Your task to perform on an android device: Open the calendar and show me this week's events Image 0: 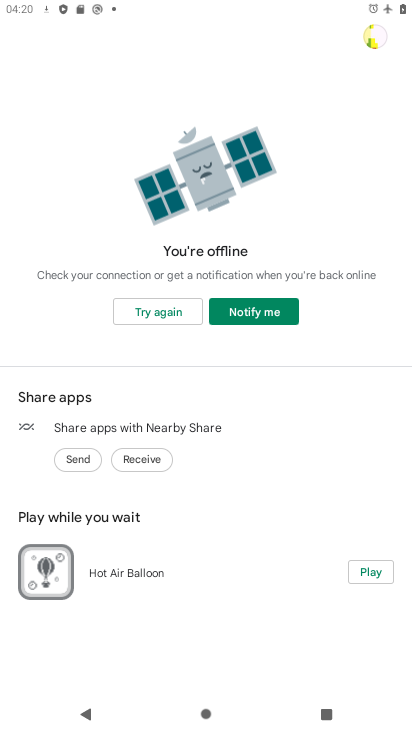
Step 0: press home button
Your task to perform on an android device: Open the calendar and show me this week's events Image 1: 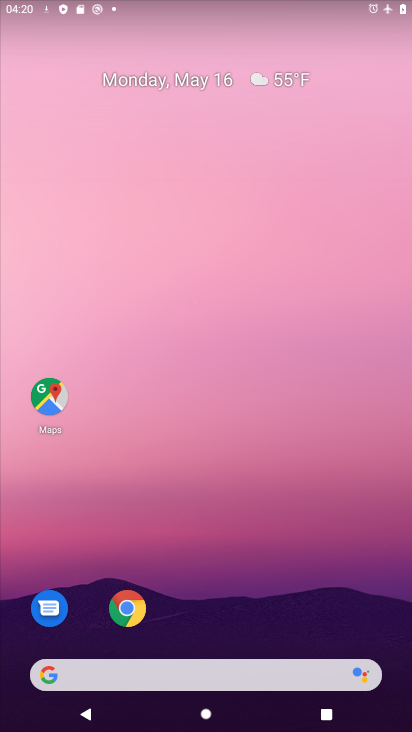
Step 1: drag from (218, 616) to (254, 376)
Your task to perform on an android device: Open the calendar and show me this week's events Image 2: 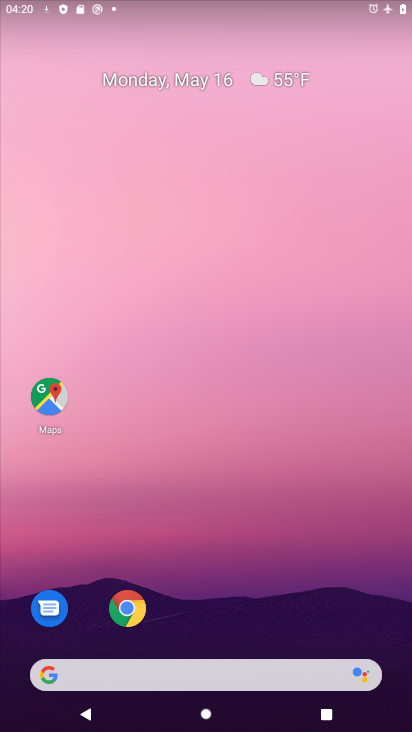
Step 2: drag from (212, 567) to (205, 224)
Your task to perform on an android device: Open the calendar and show me this week's events Image 3: 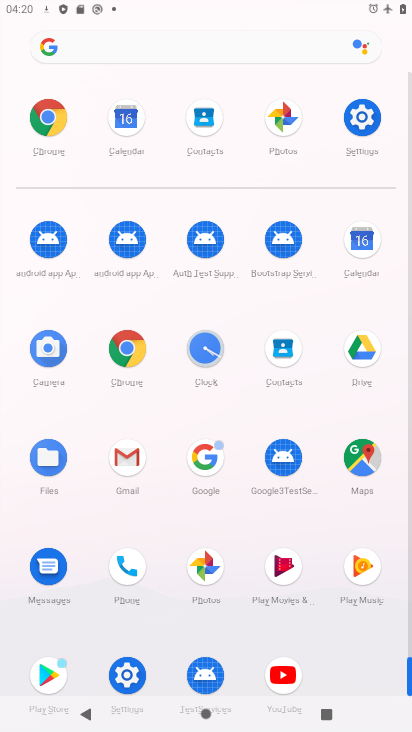
Step 3: click (366, 232)
Your task to perform on an android device: Open the calendar and show me this week's events Image 4: 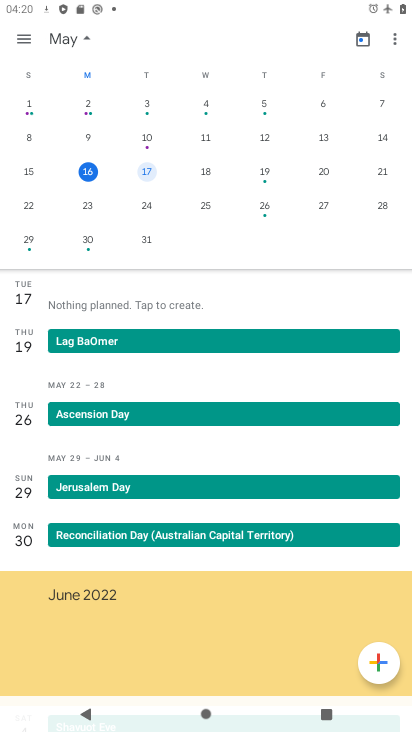
Step 4: task complete